Your task to perform on an android device: turn smart compose on in the gmail app Image 0: 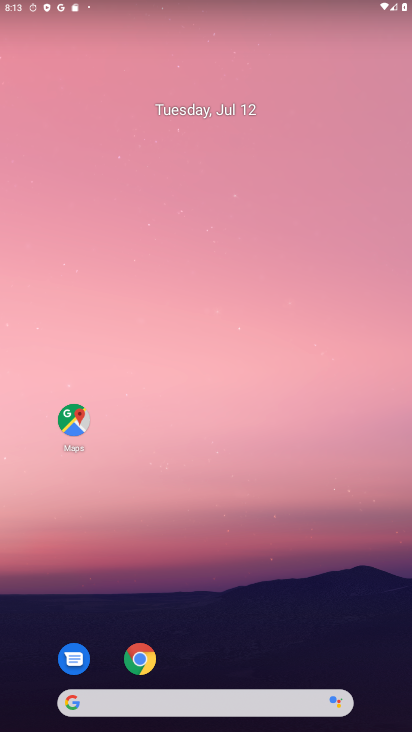
Step 0: drag from (277, 641) to (276, 297)
Your task to perform on an android device: turn smart compose on in the gmail app Image 1: 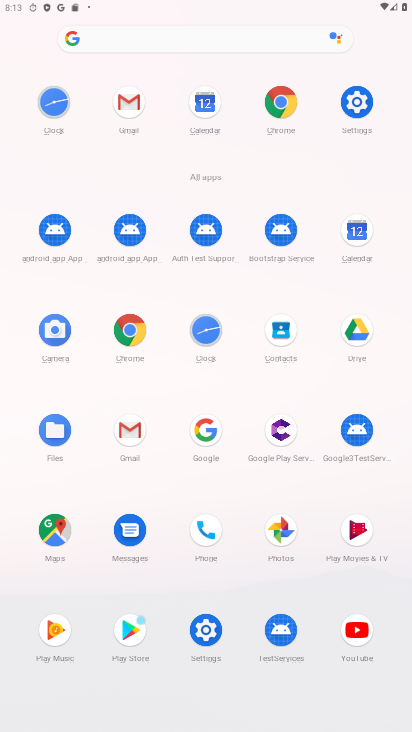
Step 1: click (140, 427)
Your task to perform on an android device: turn smart compose on in the gmail app Image 2: 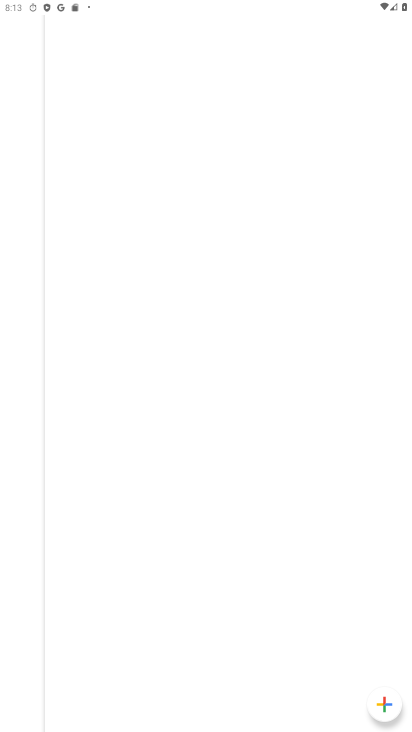
Step 2: click (132, 420)
Your task to perform on an android device: turn smart compose on in the gmail app Image 3: 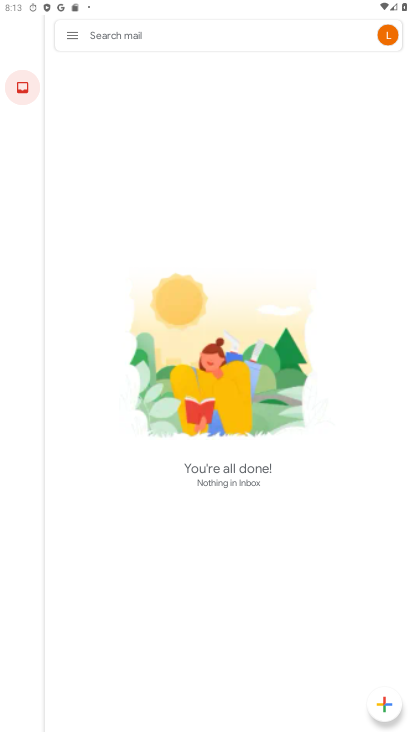
Step 3: click (79, 37)
Your task to perform on an android device: turn smart compose on in the gmail app Image 4: 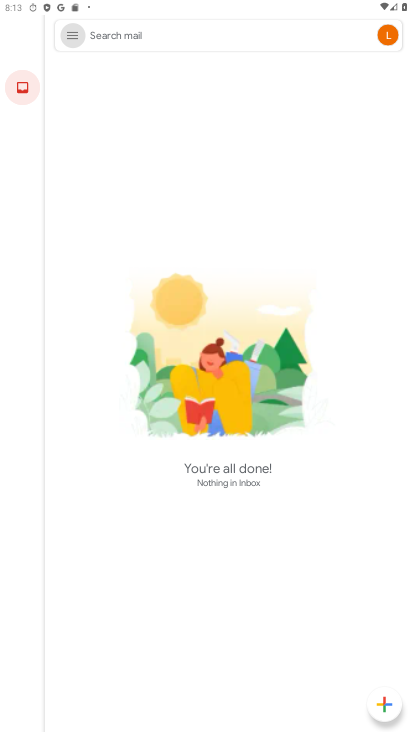
Step 4: click (79, 35)
Your task to perform on an android device: turn smart compose on in the gmail app Image 5: 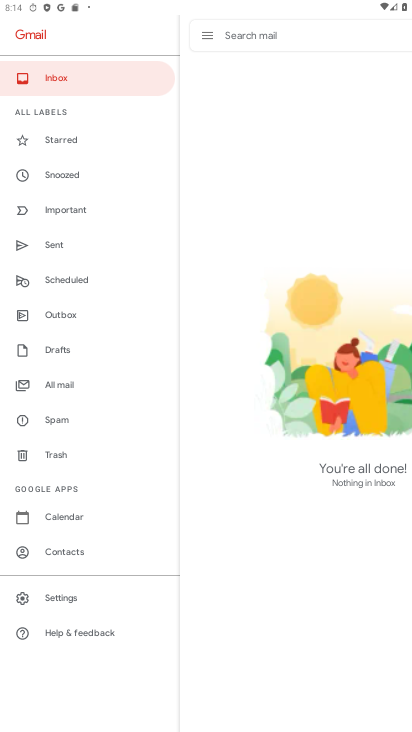
Step 5: click (64, 597)
Your task to perform on an android device: turn smart compose on in the gmail app Image 6: 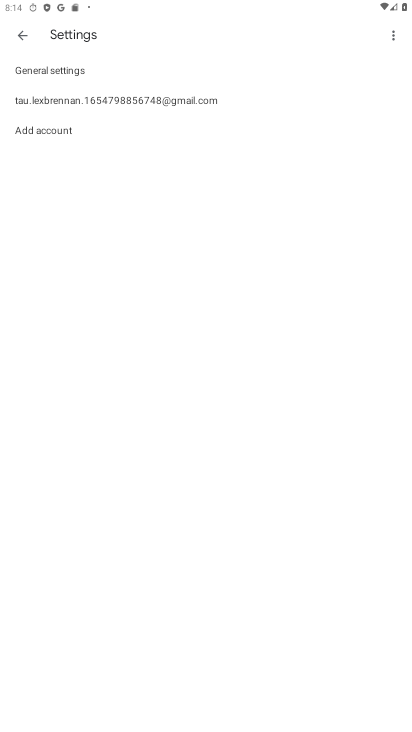
Step 6: click (62, 89)
Your task to perform on an android device: turn smart compose on in the gmail app Image 7: 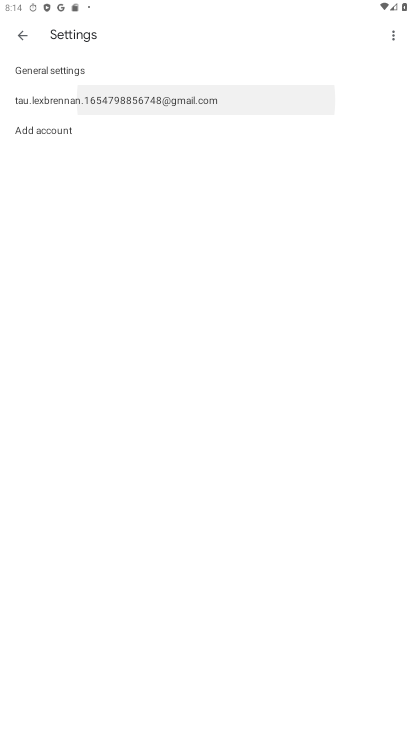
Step 7: click (62, 89)
Your task to perform on an android device: turn smart compose on in the gmail app Image 8: 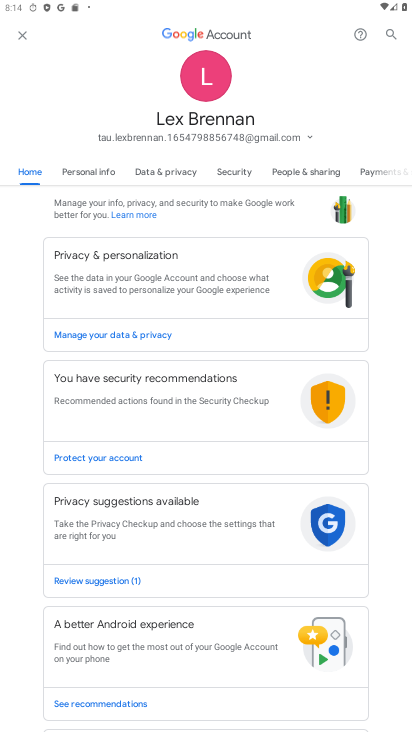
Step 8: click (26, 36)
Your task to perform on an android device: turn smart compose on in the gmail app Image 9: 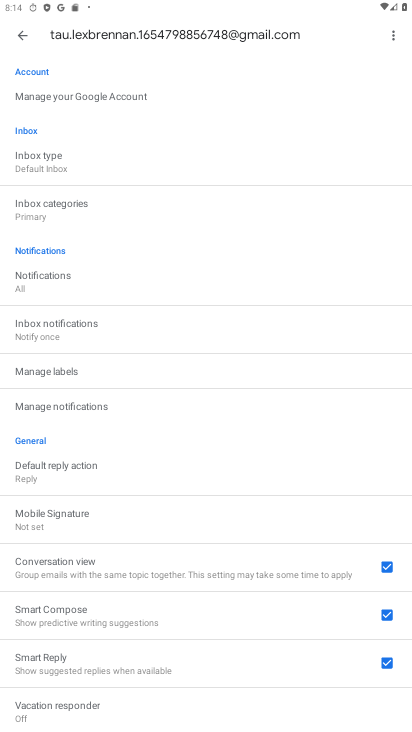
Step 9: task complete